Your task to perform on an android device: make emails show in primary in the gmail app Image 0: 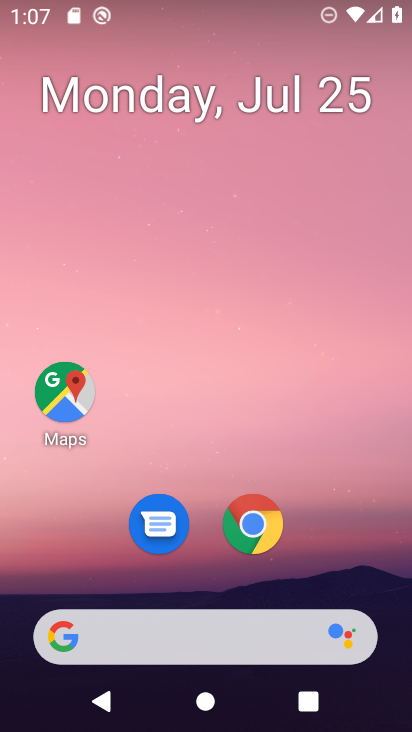
Step 0: drag from (140, 650) to (356, 5)
Your task to perform on an android device: make emails show in primary in the gmail app Image 1: 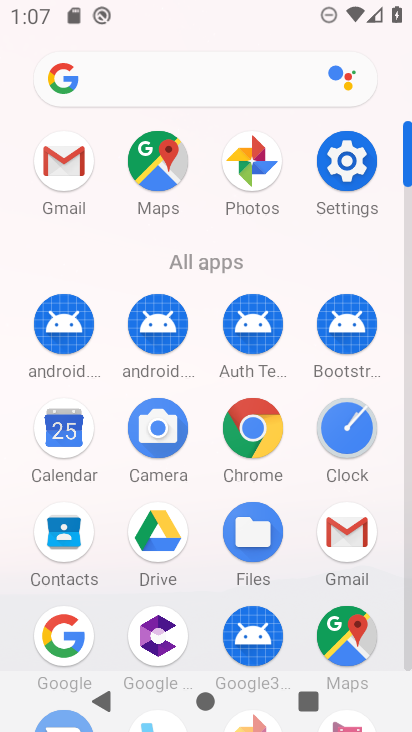
Step 1: click (342, 535)
Your task to perform on an android device: make emails show in primary in the gmail app Image 2: 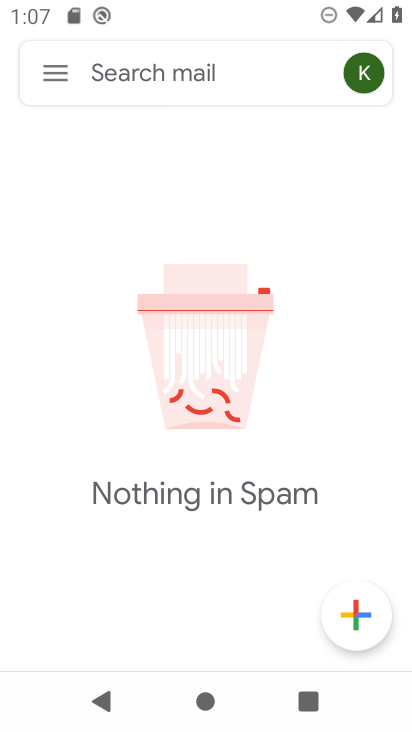
Step 2: click (61, 74)
Your task to perform on an android device: make emails show in primary in the gmail app Image 3: 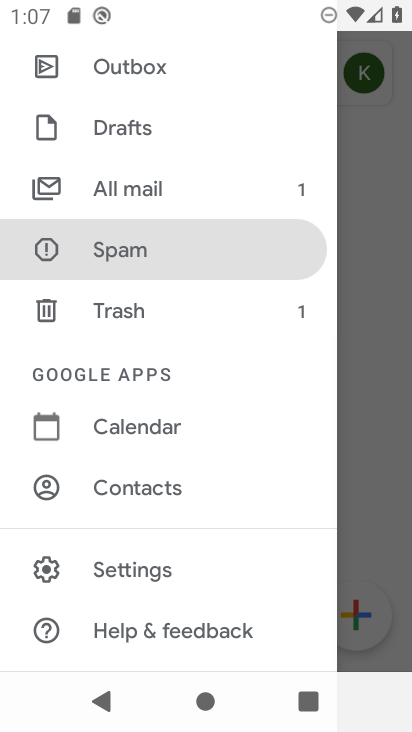
Step 3: click (157, 574)
Your task to perform on an android device: make emails show in primary in the gmail app Image 4: 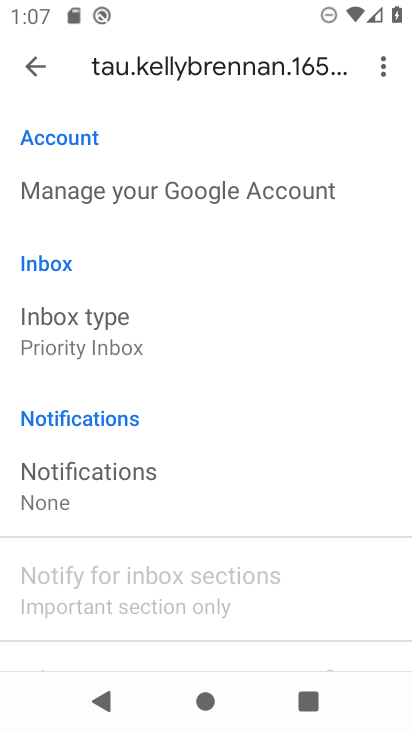
Step 4: task complete